Your task to perform on an android device: turn off location history Image 0: 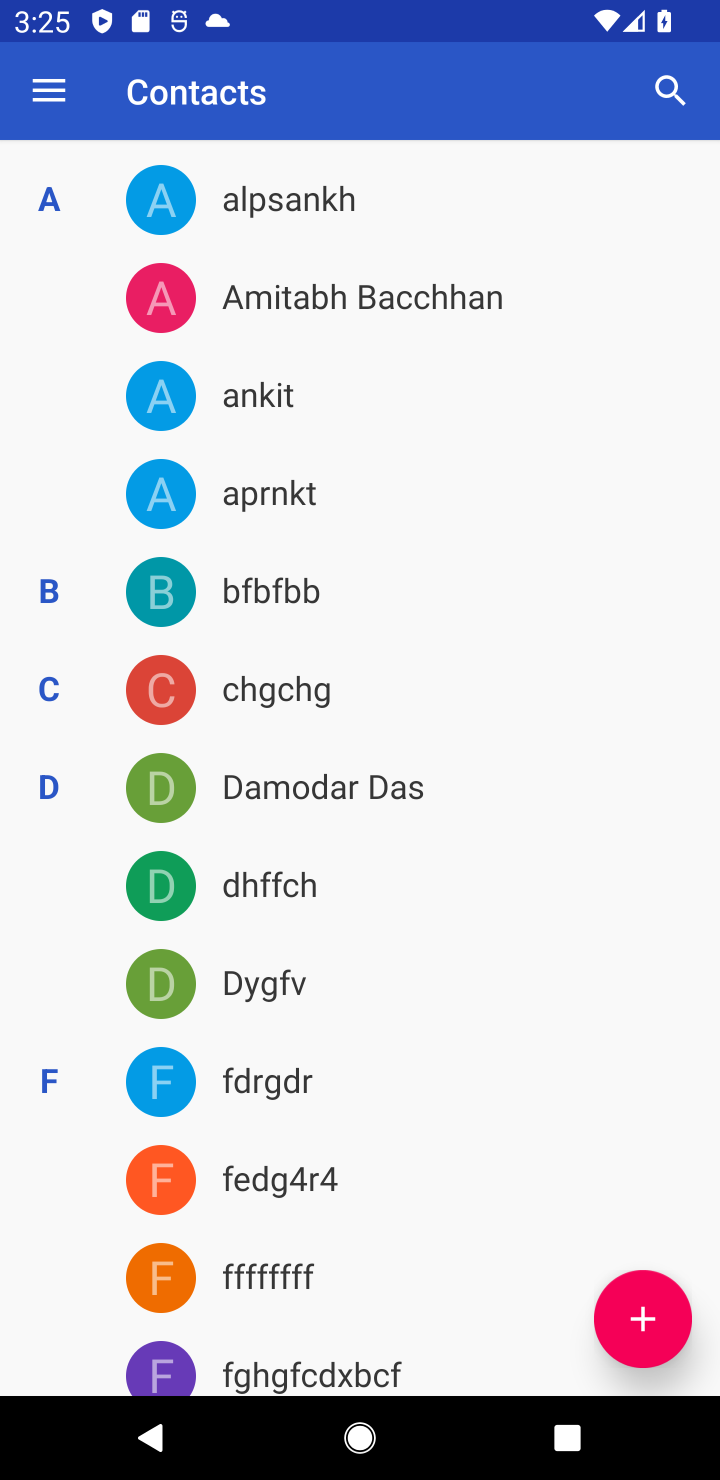
Step 0: press home button
Your task to perform on an android device: turn off location history Image 1: 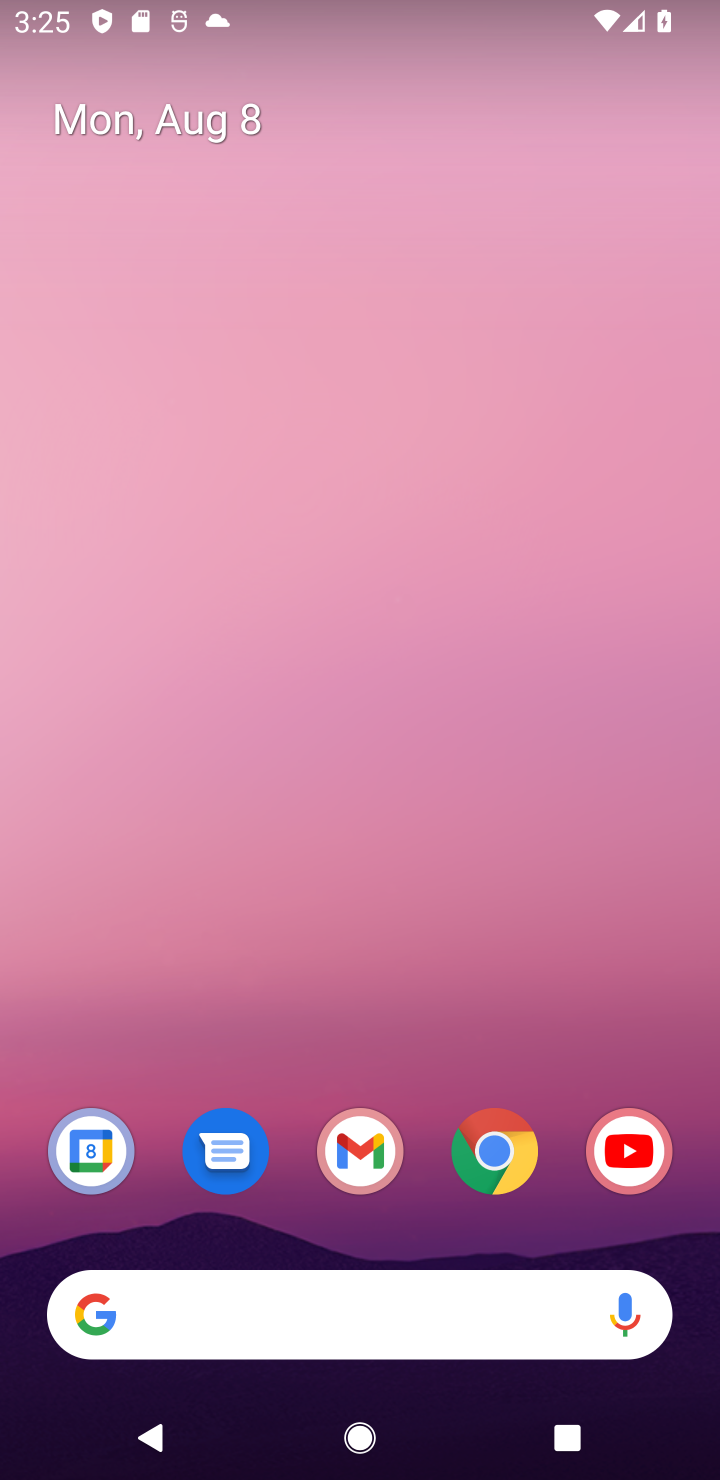
Step 1: drag from (285, 1067) to (311, 308)
Your task to perform on an android device: turn off location history Image 2: 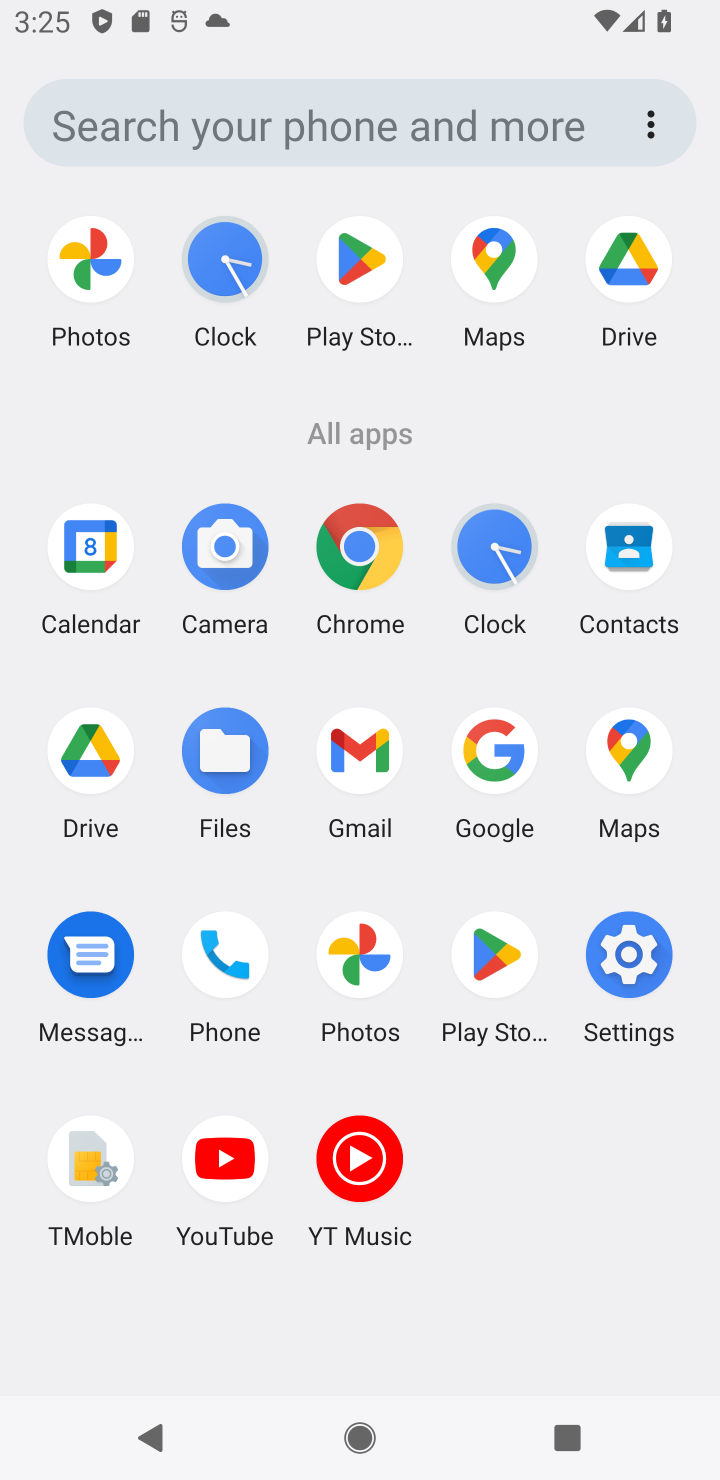
Step 2: click (623, 953)
Your task to perform on an android device: turn off location history Image 3: 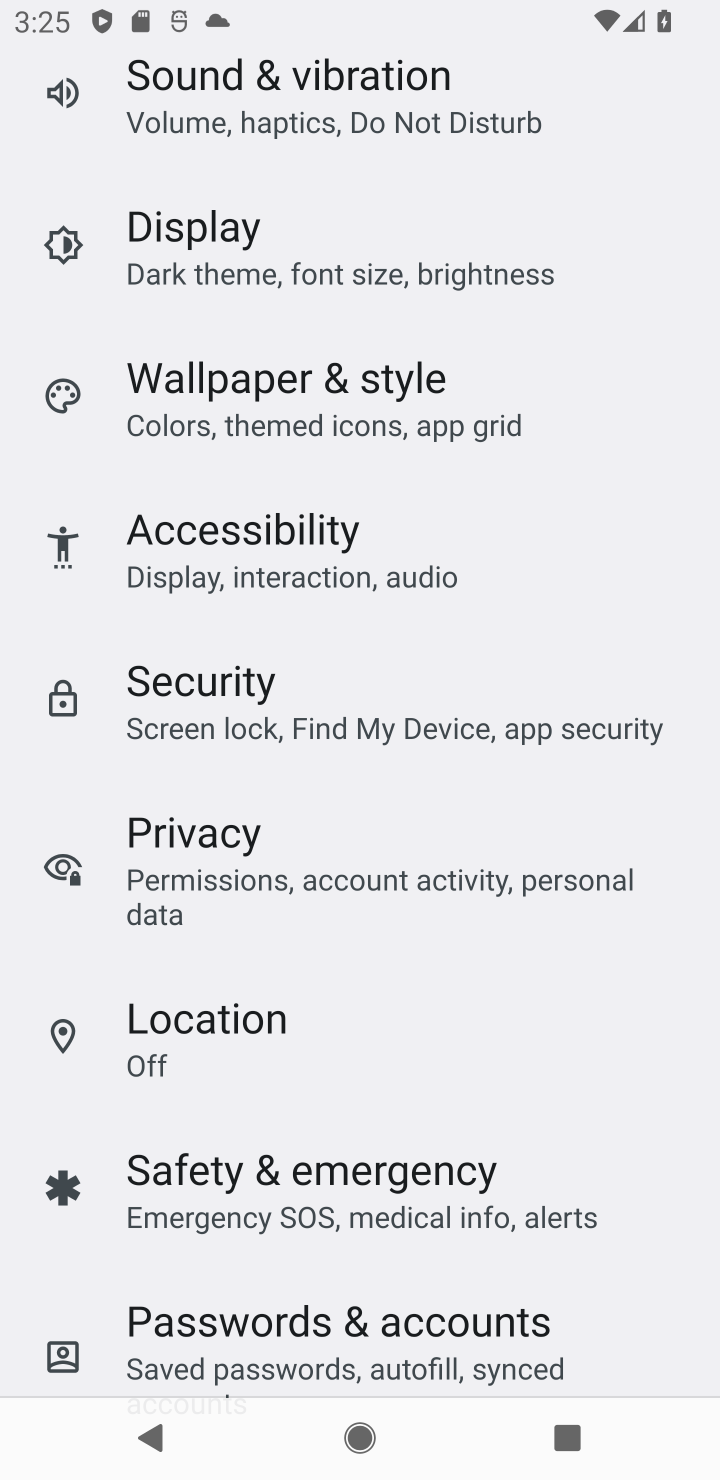
Step 3: click (298, 1024)
Your task to perform on an android device: turn off location history Image 4: 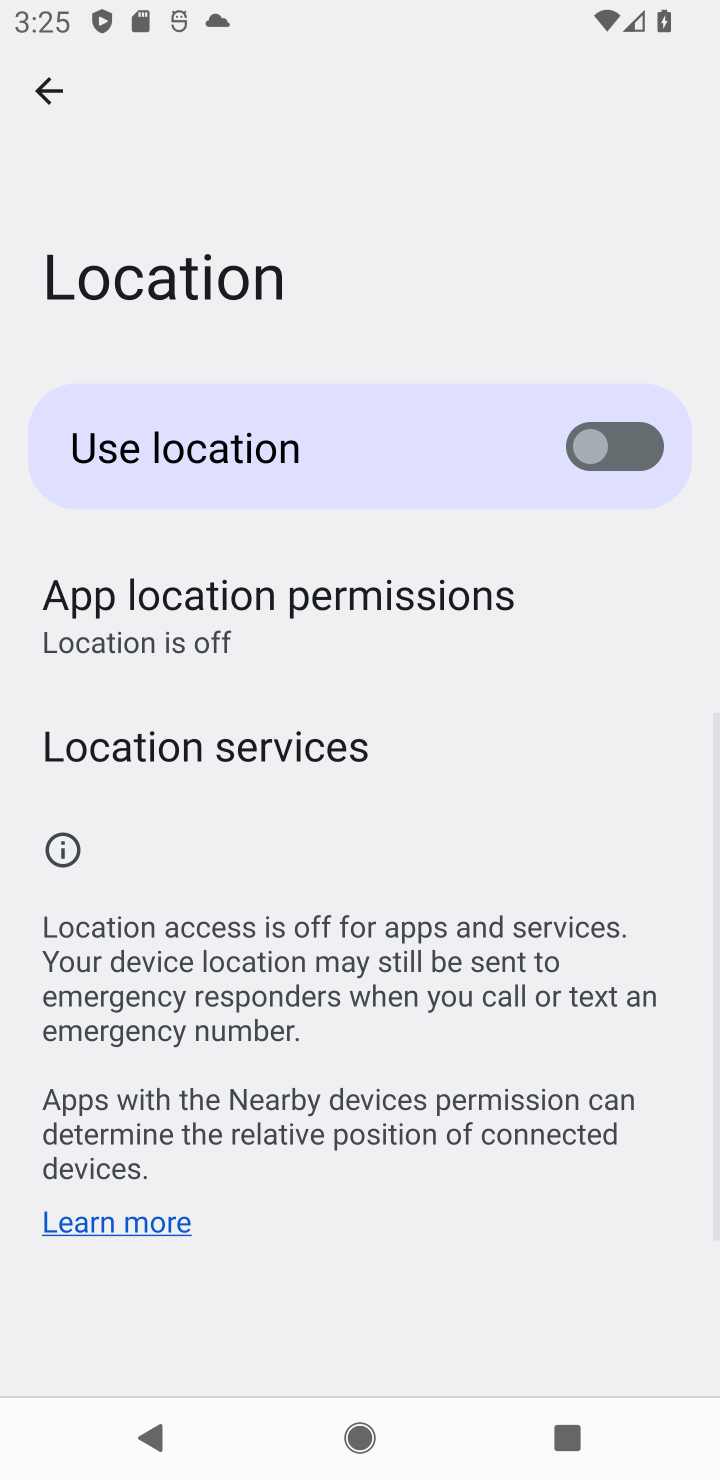
Step 4: drag from (381, 1197) to (381, 426)
Your task to perform on an android device: turn off location history Image 5: 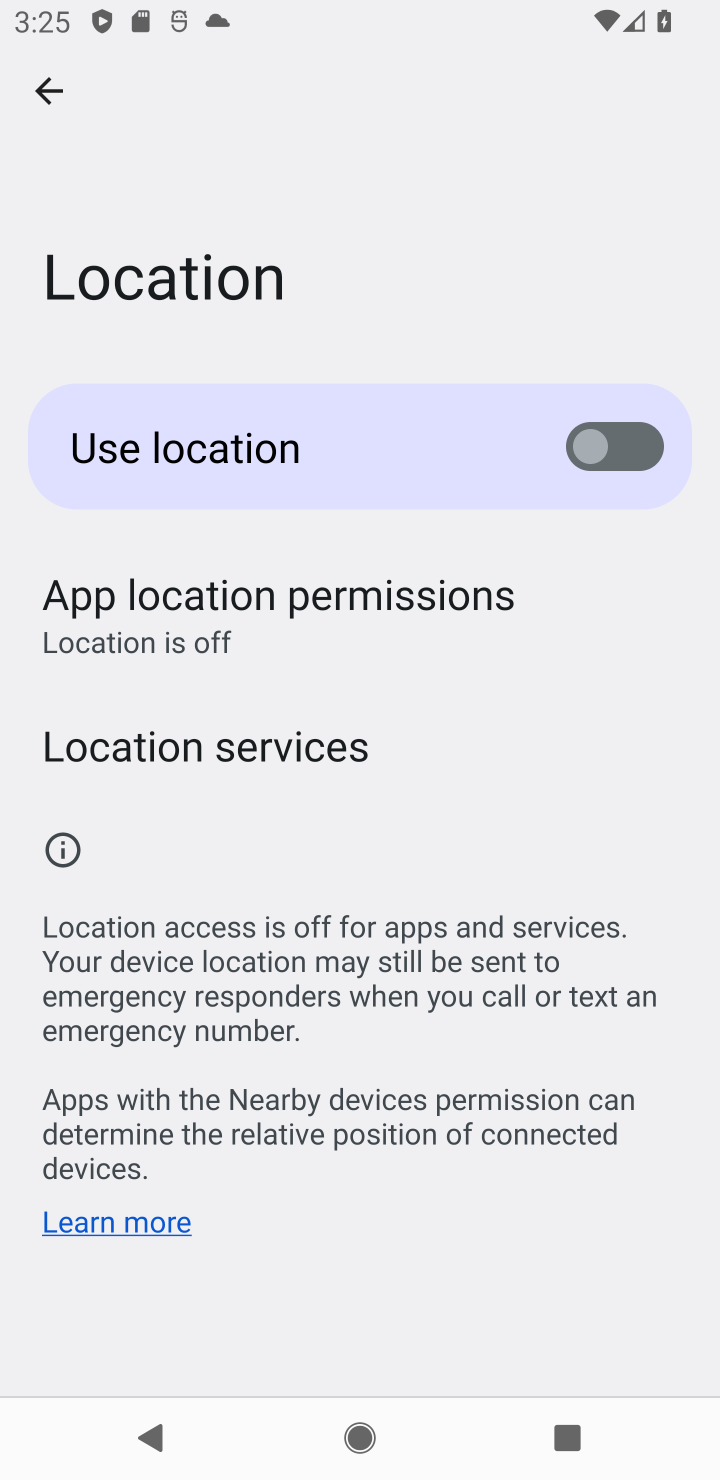
Step 5: click (303, 747)
Your task to perform on an android device: turn off location history Image 6: 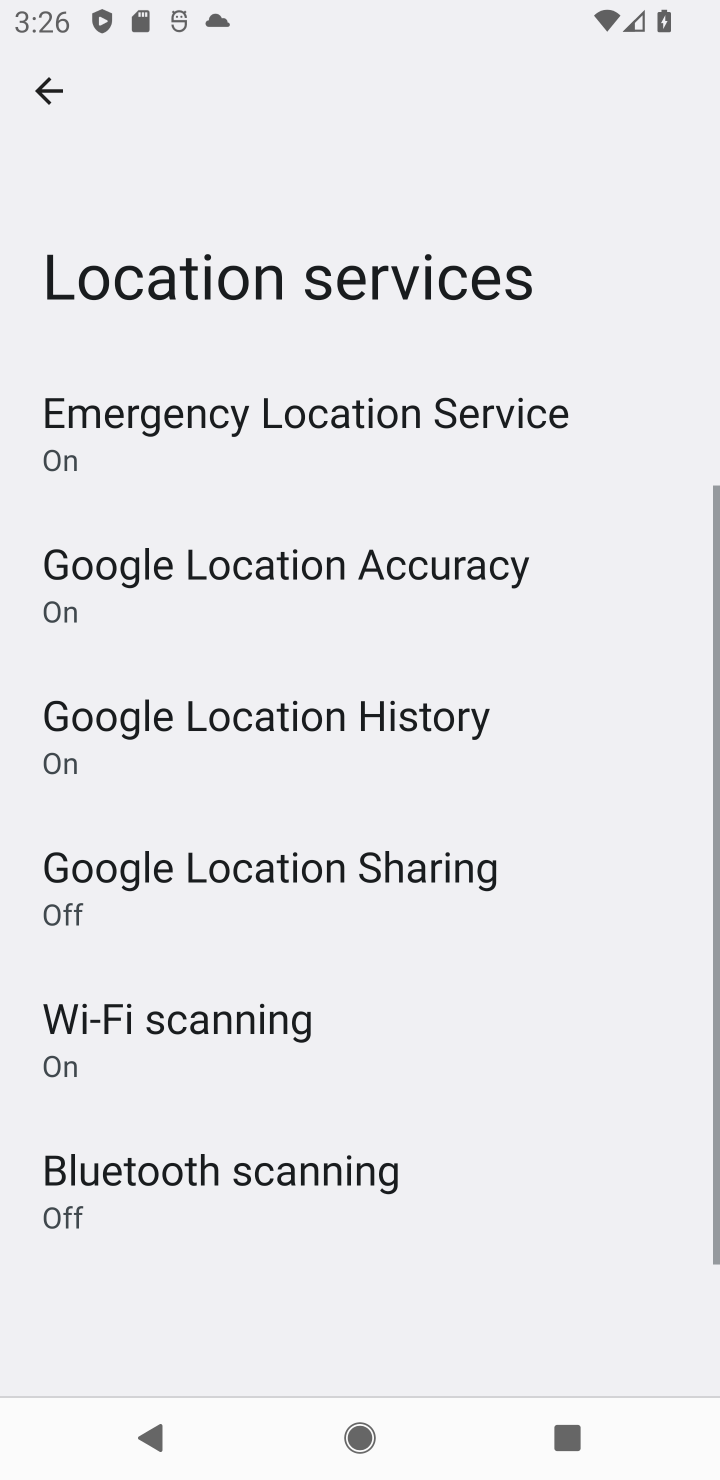
Step 6: click (312, 736)
Your task to perform on an android device: turn off location history Image 7: 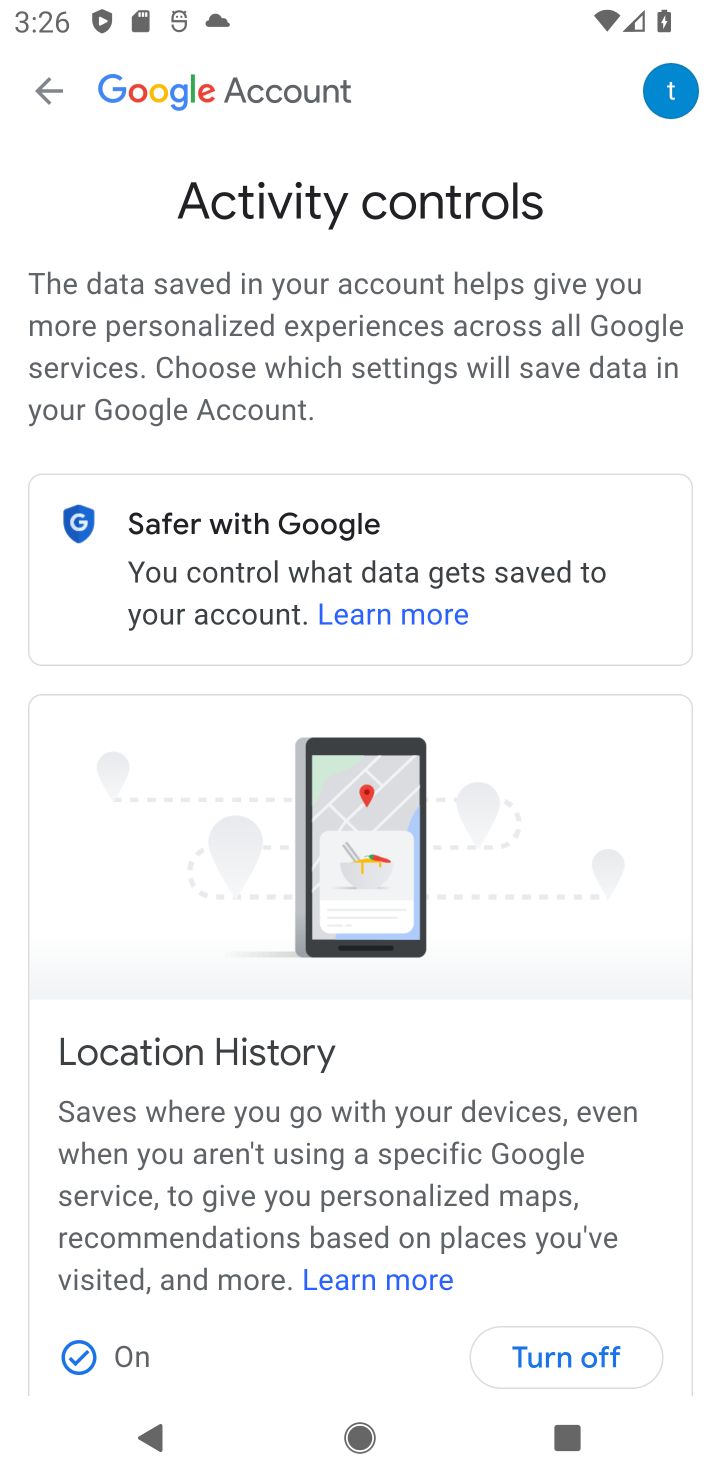
Step 7: click (555, 1351)
Your task to perform on an android device: turn off location history Image 8: 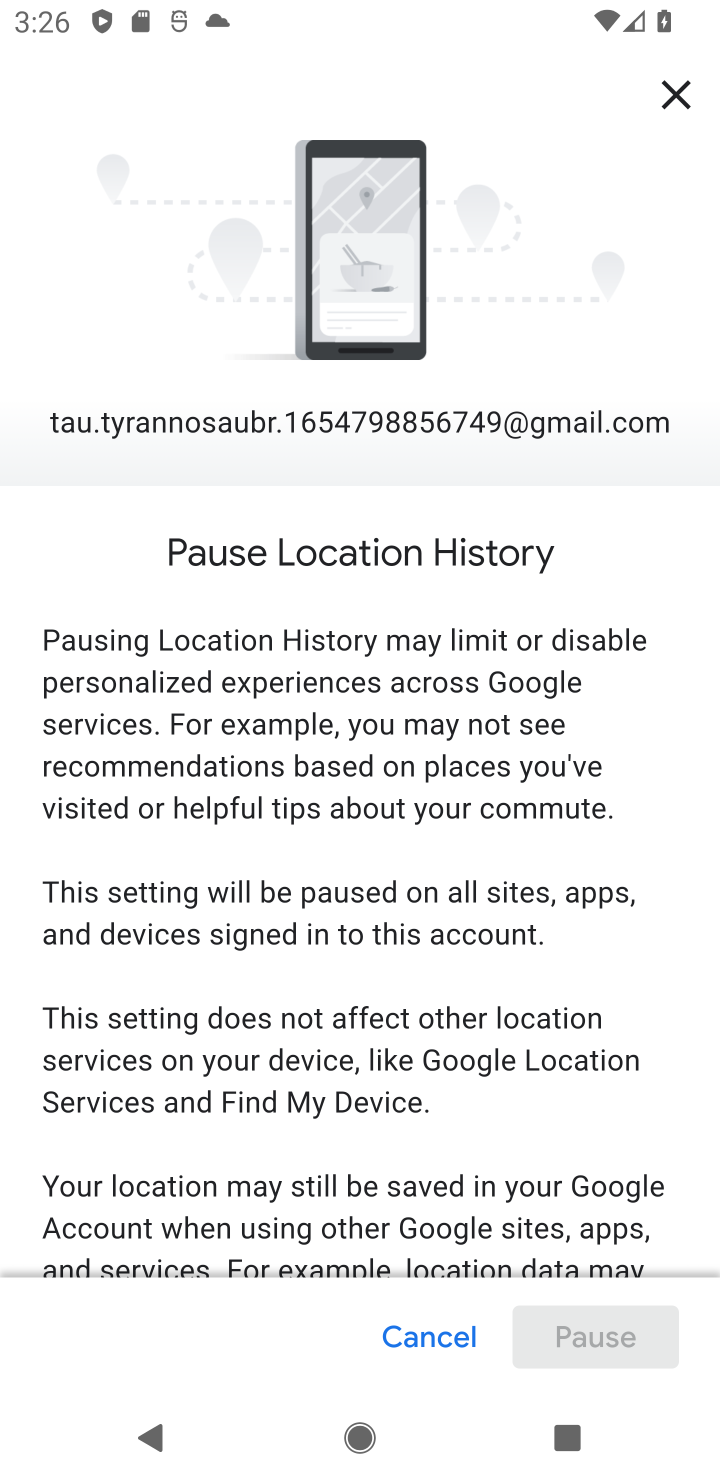
Step 8: drag from (574, 1216) to (493, 322)
Your task to perform on an android device: turn off location history Image 9: 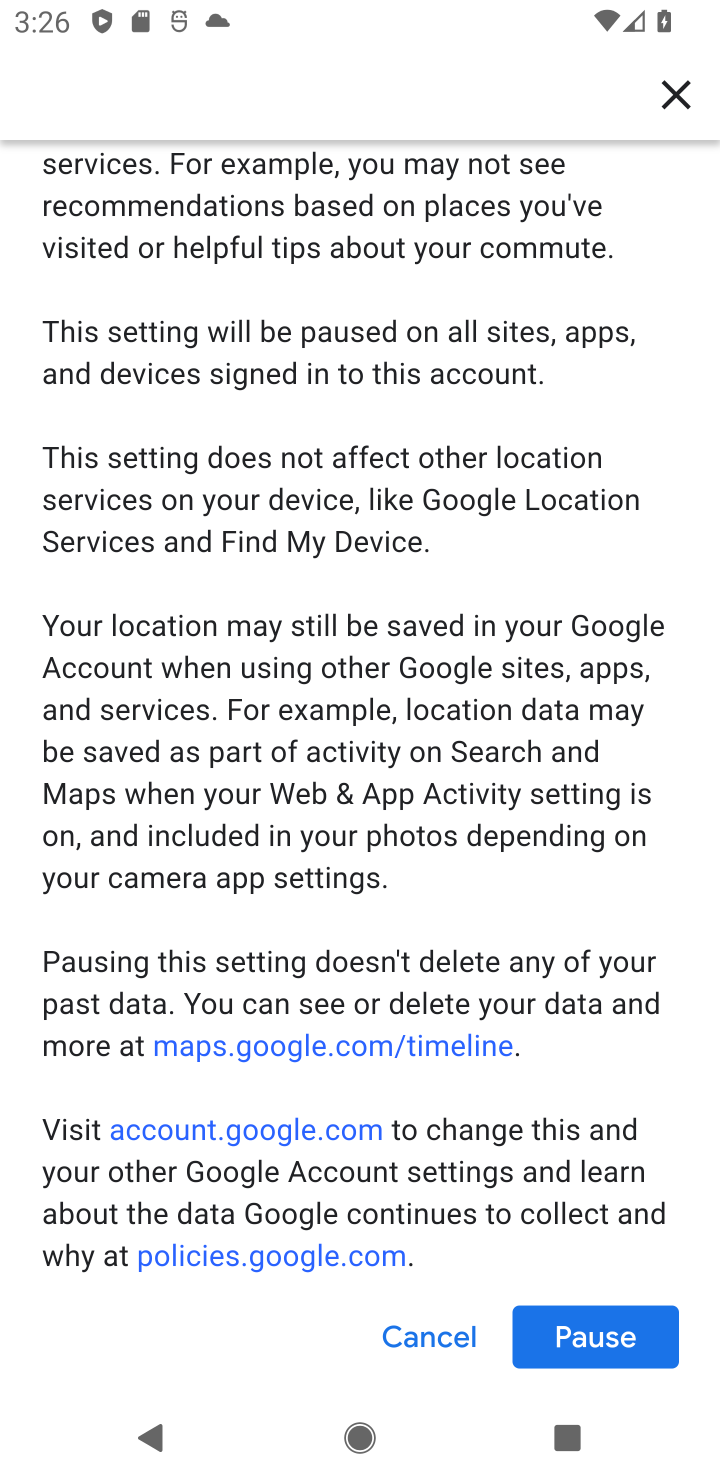
Step 9: click (584, 1326)
Your task to perform on an android device: turn off location history Image 10: 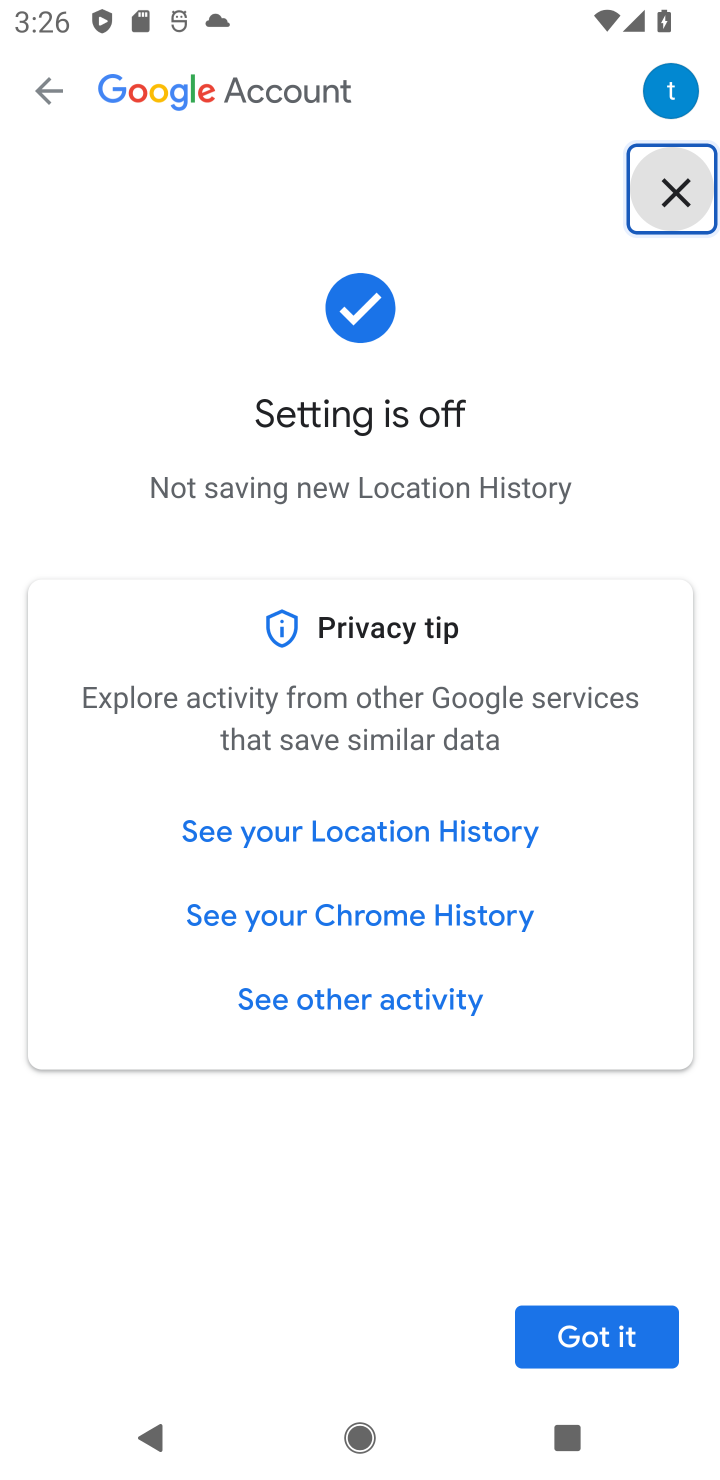
Step 10: task complete